Your task to perform on an android device: turn on the 24-hour format for clock Image 0: 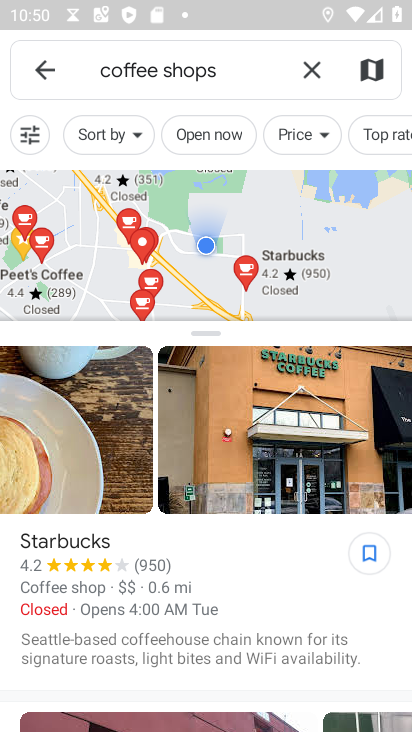
Step 0: press back button
Your task to perform on an android device: turn on the 24-hour format for clock Image 1: 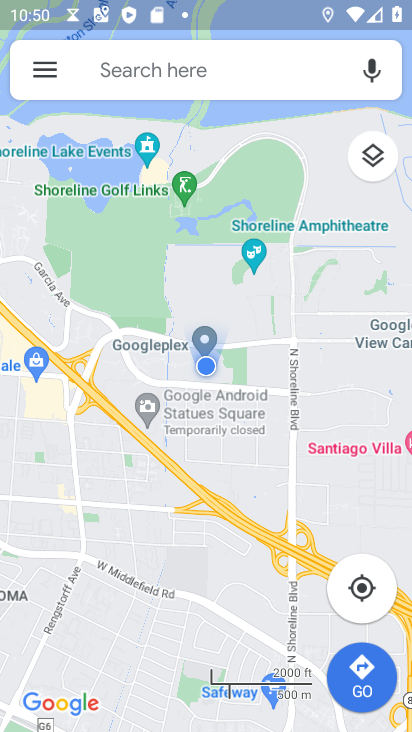
Step 1: press back button
Your task to perform on an android device: turn on the 24-hour format for clock Image 2: 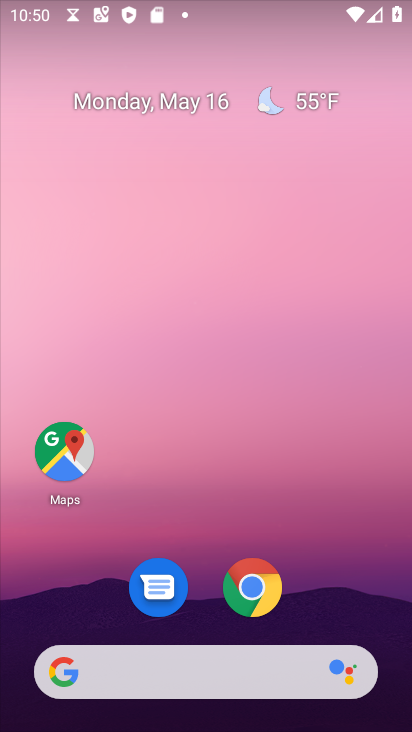
Step 2: drag from (338, 588) to (298, 2)
Your task to perform on an android device: turn on the 24-hour format for clock Image 3: 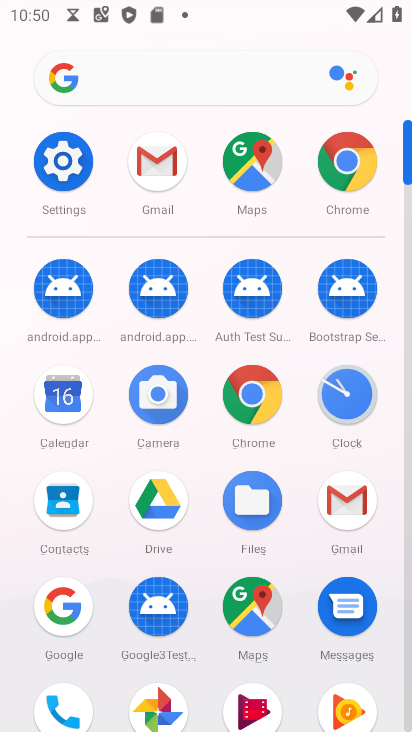
Step 3: drag from (4, 610) to (30, 243)
Your task to perform on an android device: turn on the 24-hour format for clock Image 4: 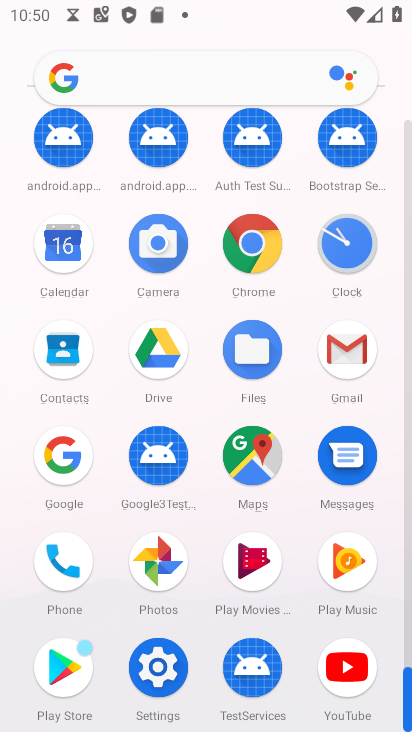
Step 4: click (347, 238)
Your task to perform on an android device: turn on the 24-hour format for clock Image 5: 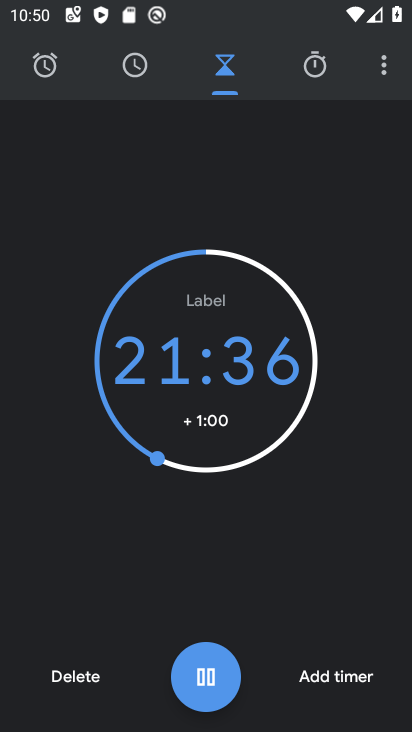
Step 5: click (378, 74)
Your task to perform on an android device: turn on the 24-hour format for clock Image 6: 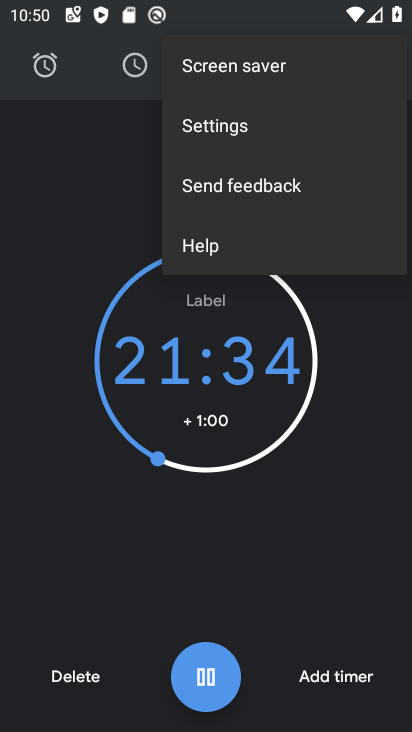
Step 6: click (294, 125)
Your task to perform on an android device: turn on the 24-hour format for clock Image 7: 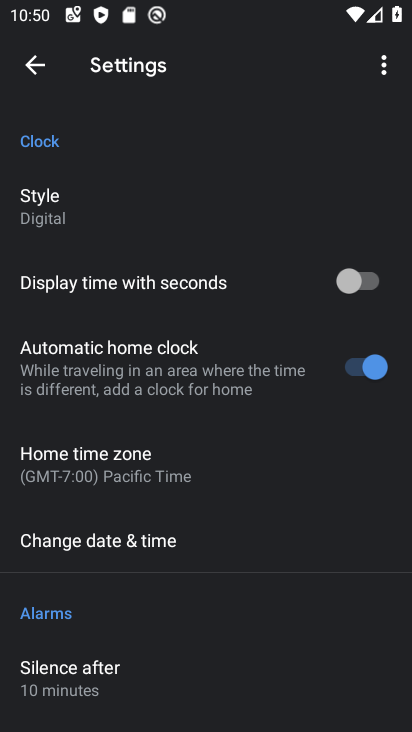
Step 7: drag from (235, 599) to (249, 242)
Your task to perform on an android device: turn on the 24-hour format for clock Image 8: 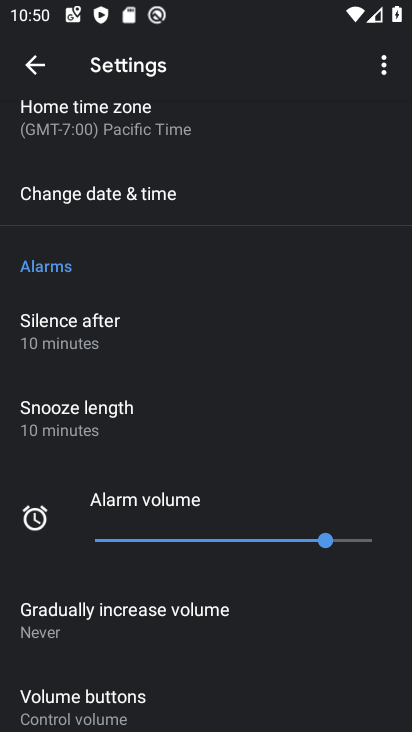
Step 8: click (131, 180)
Your task to perform on an android device: turn on the 24-hour format for clock Image 9: 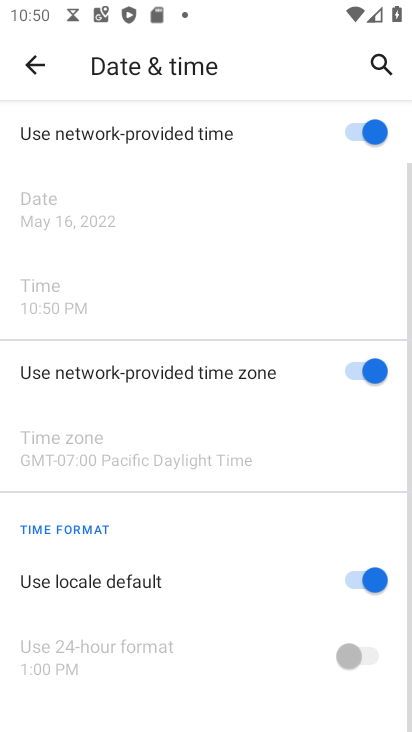
Step 9: drag from (230, 665) to (213, 121)
Your task to perform on an android device: turn on the 24-hour format for clock Image 10: 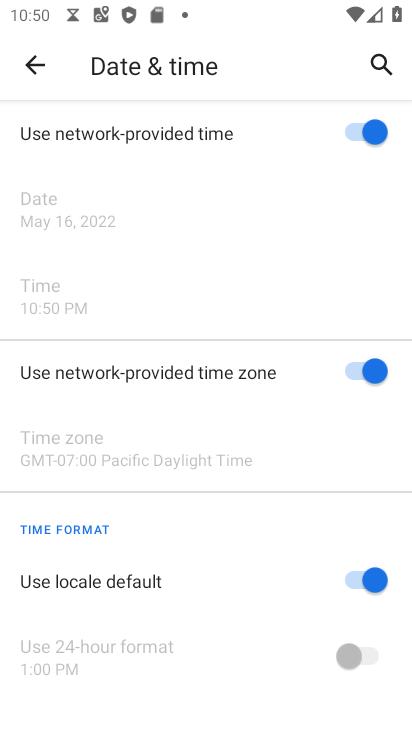
Step 10: click (373, 580)
Your task to perform on an android device: turn on the 24-hour format for clock Image 11: 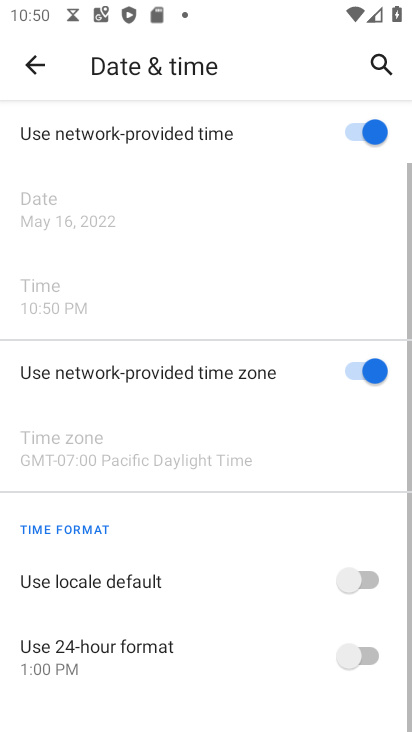
Step 11: click (366, 643)
Your task to perform on an android device: turn on the 24-hour format for clock Image 12: 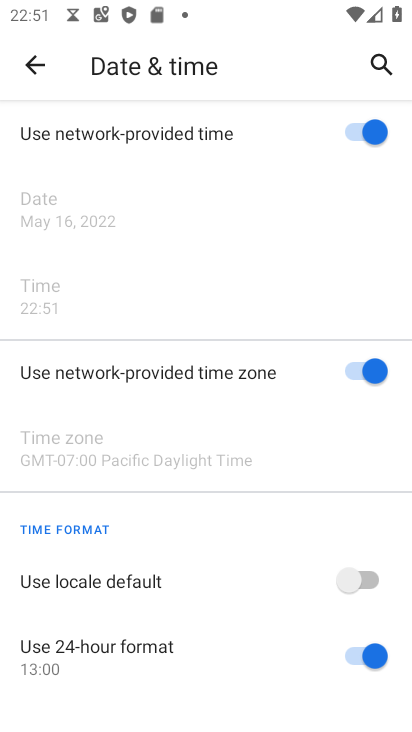
Step 12: task complete